Your task to perform on an android device: View the shopping cart on newegg. Add razer naga to the cart on newegg, then select checkout. Image 0: 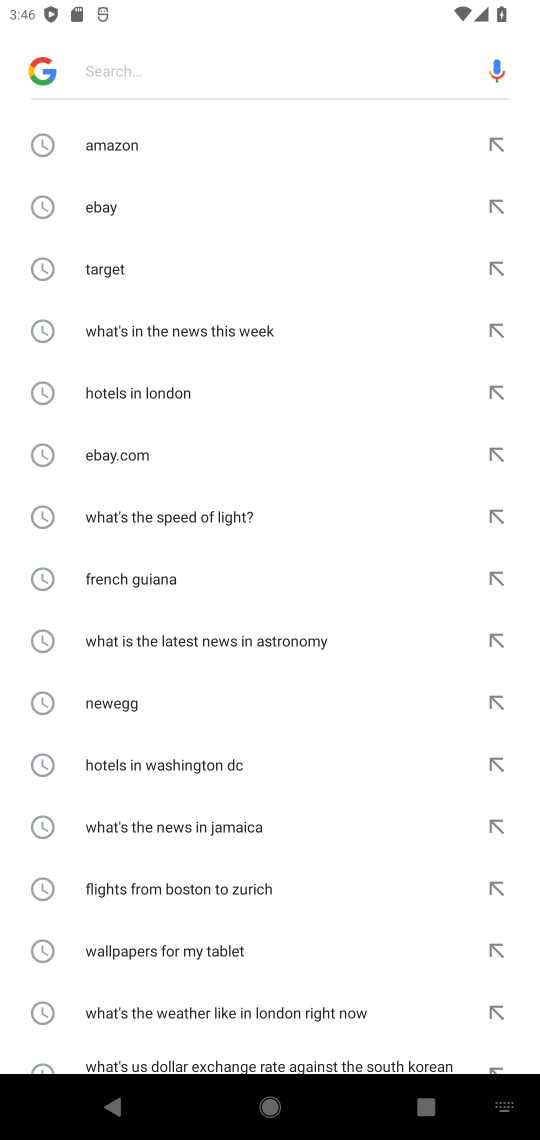
Step 0: press home button
Your task to perform on an android device: View the shopping cart on newegg. Add razer naga to the cart on newegg, then select checkout. Image 1: 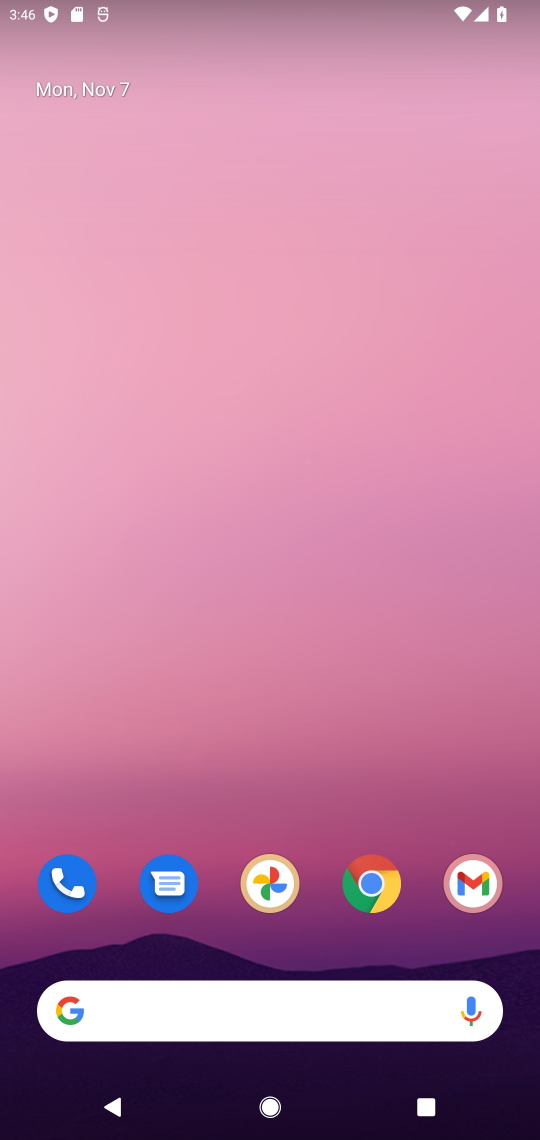
Step 1: click (370, 884)
Your task to perform on an android device: View the shopping cart on newegg. Add razer naga to the cart on newegg, then select checkout. Image 2: 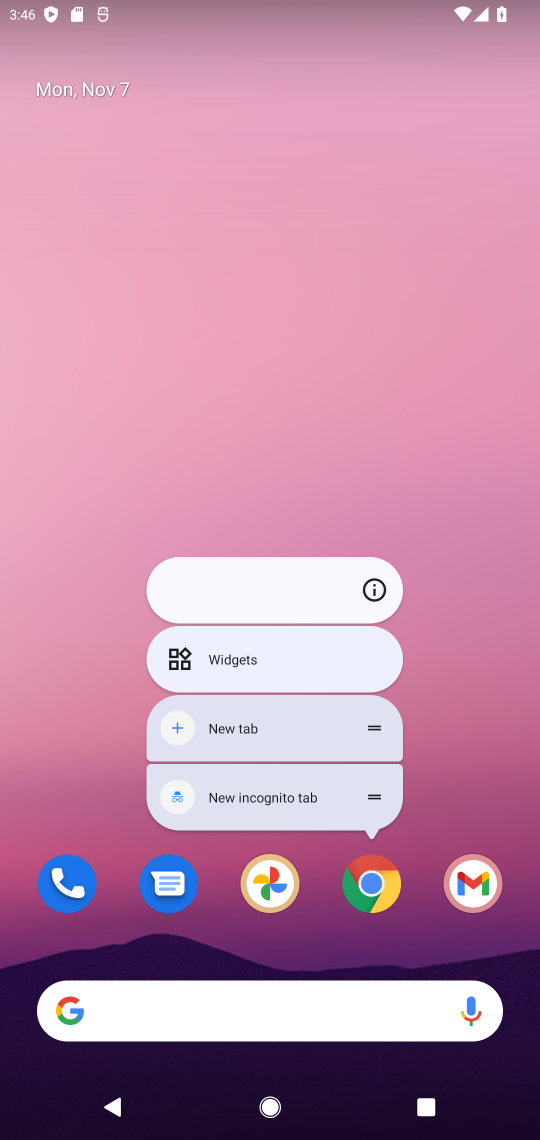
Step 2: click (371, 889)
Your task to perform on an android device: View the shopping cart on newegg. Add razer naga to the cart on newegg, then select checkout. Image 3: 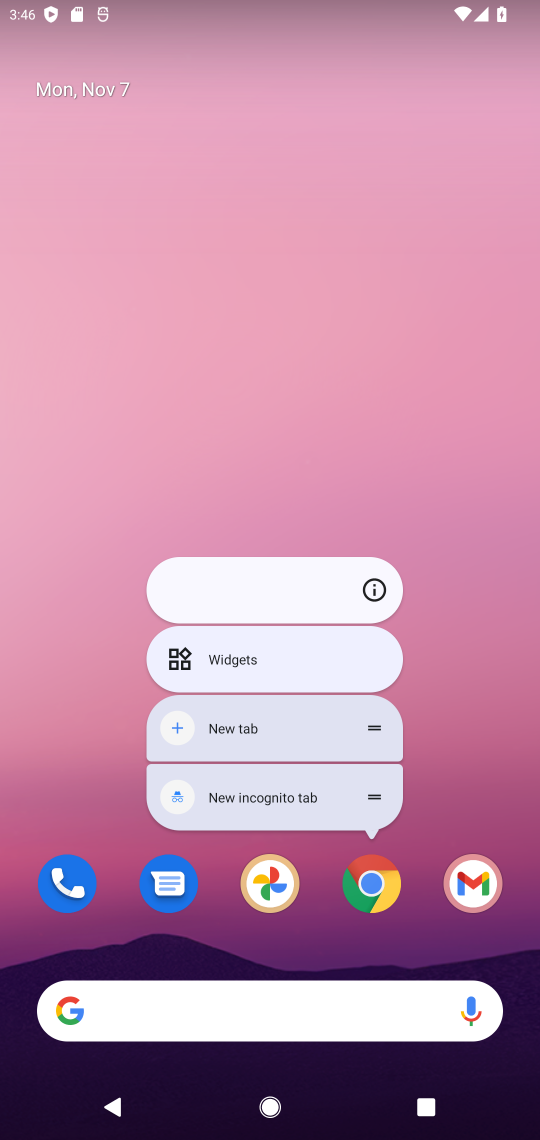
Step 3: click (371, 892)
Your task to perform on an android device: View the shopping cart on newegg. Add razer naga to the cart on newegg, then select checkout. Image 4: 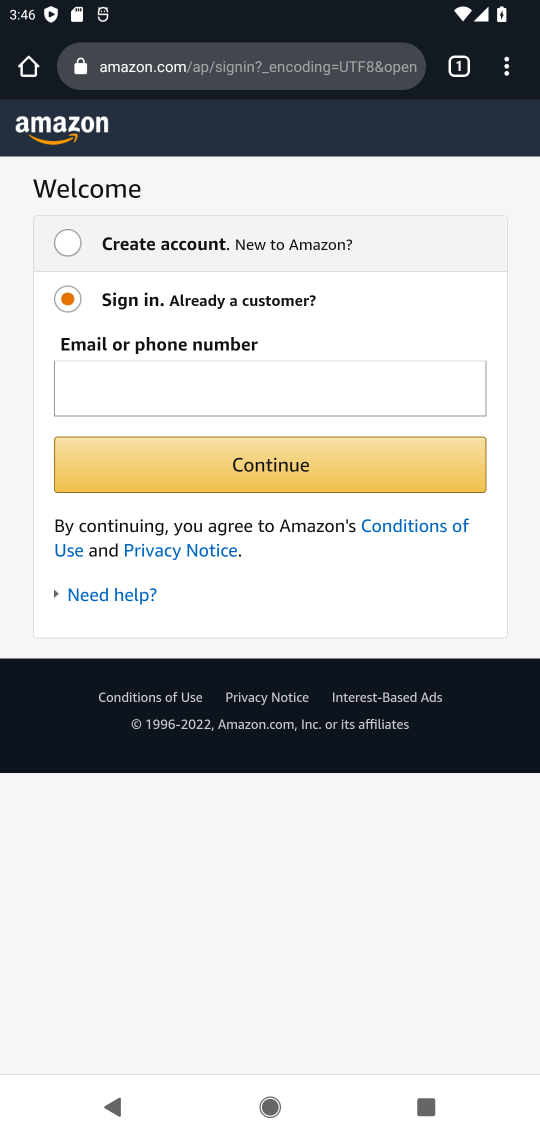
Step 4: click (319, 82)
Your task to perform on an android device: View the shopping cart on newegg. Add razer naga to the cart on newegg, then select checkout. Image 5: 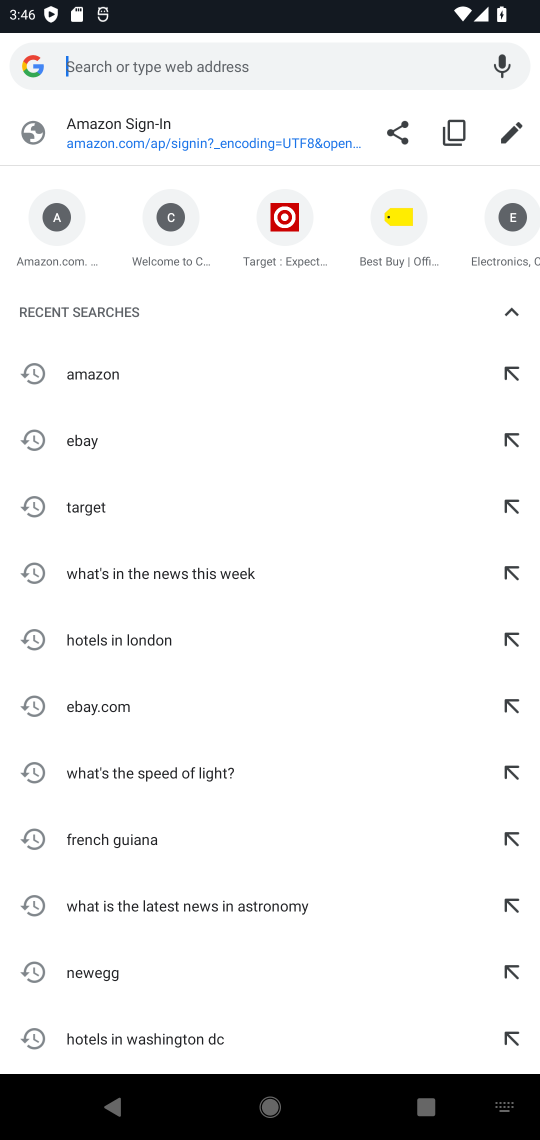
Step 5: click (99, 964)
Your task to perform on an android device: View the shopping cart on newegg. Add razer naga to the cart on newegg, then select checkout. Image 6: 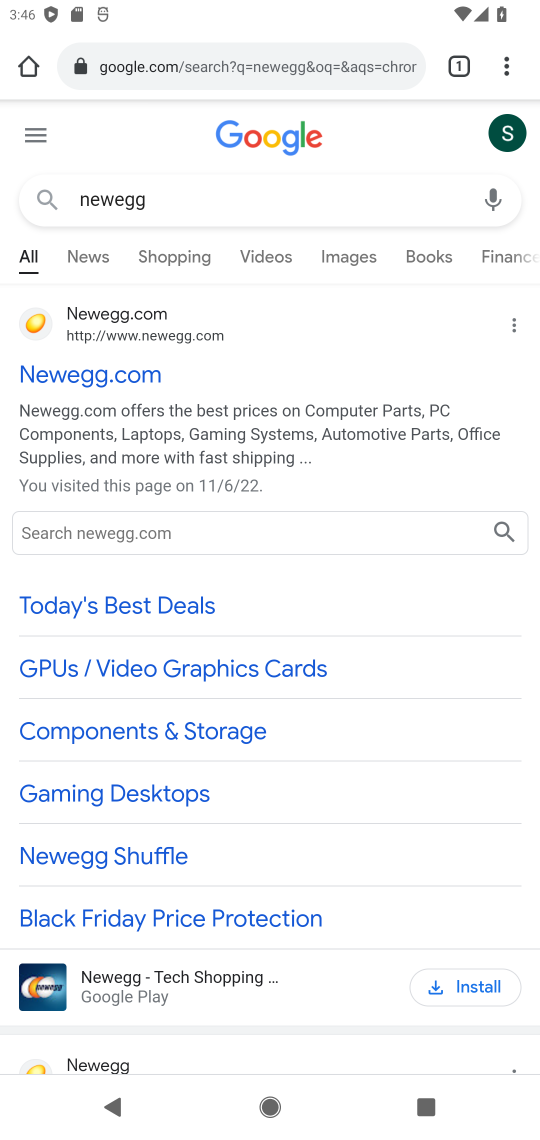
Step 6: click (129, 379)
Your task to perform on an android device: View the shopping cart on newegg. Add razer naga to the cart on newegg, then select checkout. Image 7: 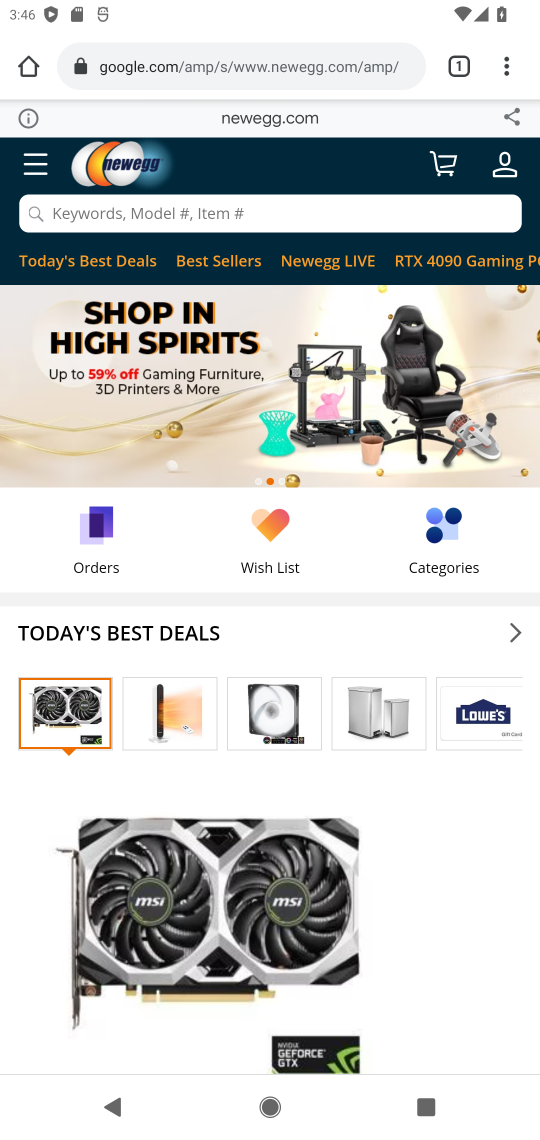
Step 7: click (312, 213)
Your task to perform on an android device: View the shopping cart on newegg. Add razer naga to the cart on newegg, then select checkout. Image 8: 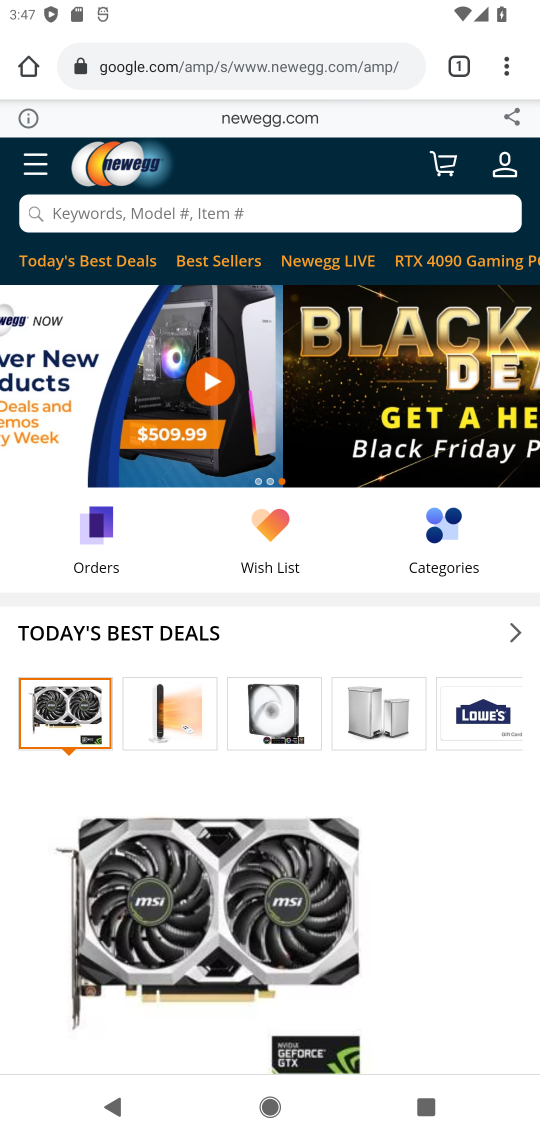
Step 8: click (114, 208)
Your task to perform on an android device: View the shopping cart on newegg. Add razer naga to the cart on newegg, then select checkout. Image 9: 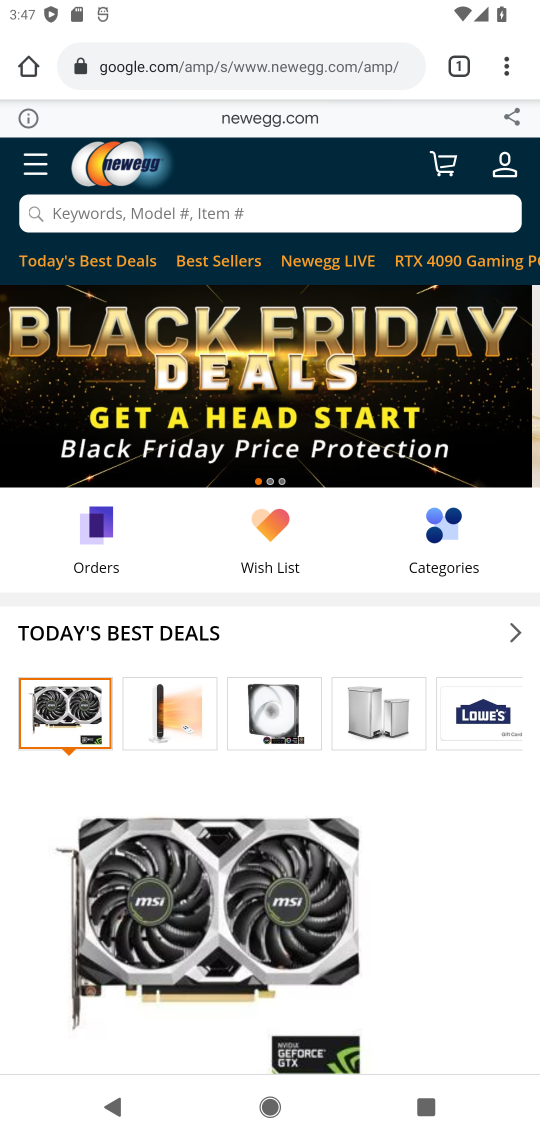
Step 9: click (208, 208)
Your task to perform on an android device: View the shopping cart on newegg. Add razer naga to the cart on newegg, then select checkout. Image 10: 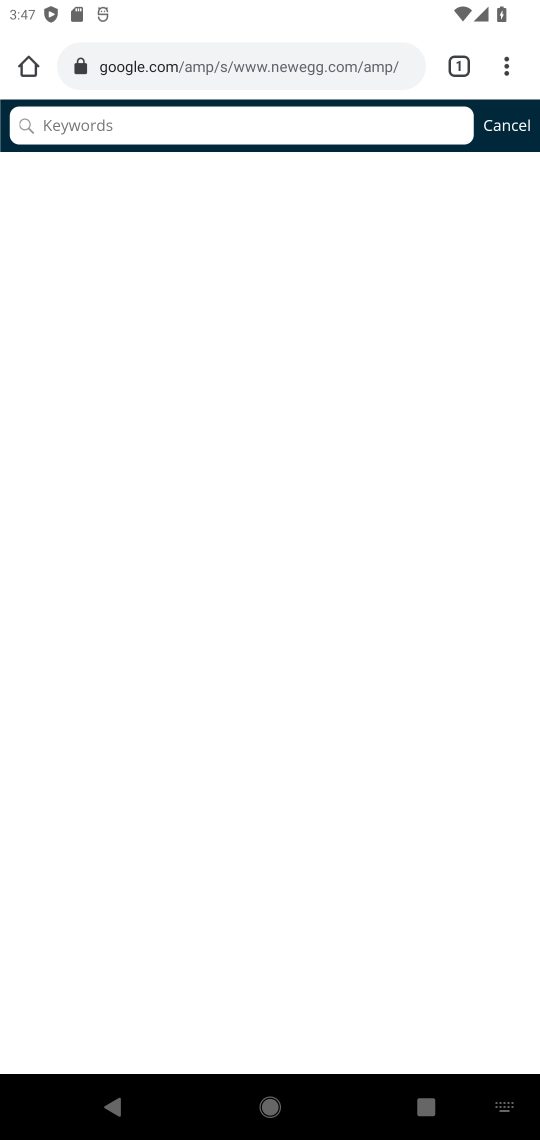
Step 10: type " razer naga"
Your task to perform on an android device: View the shopping cart on newegg. Add razer naga to the cart on newegg, then select checkout. Image 11: 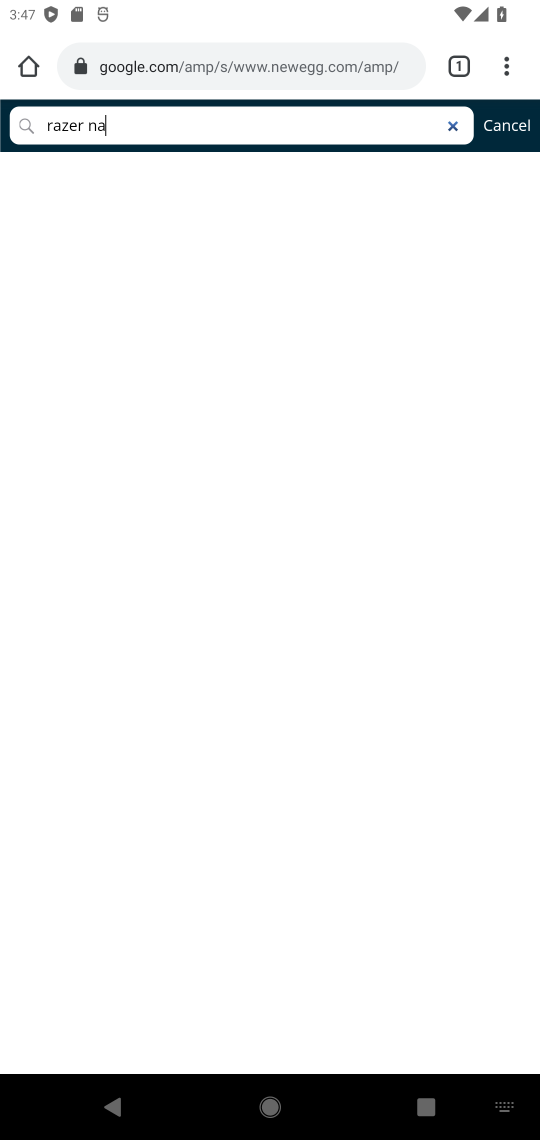
Step 11: press enter
Your task to perform on an android device: View the shopping cart on newegg. Add razer naga to the cart on newegg, then select checkout. Image 12: 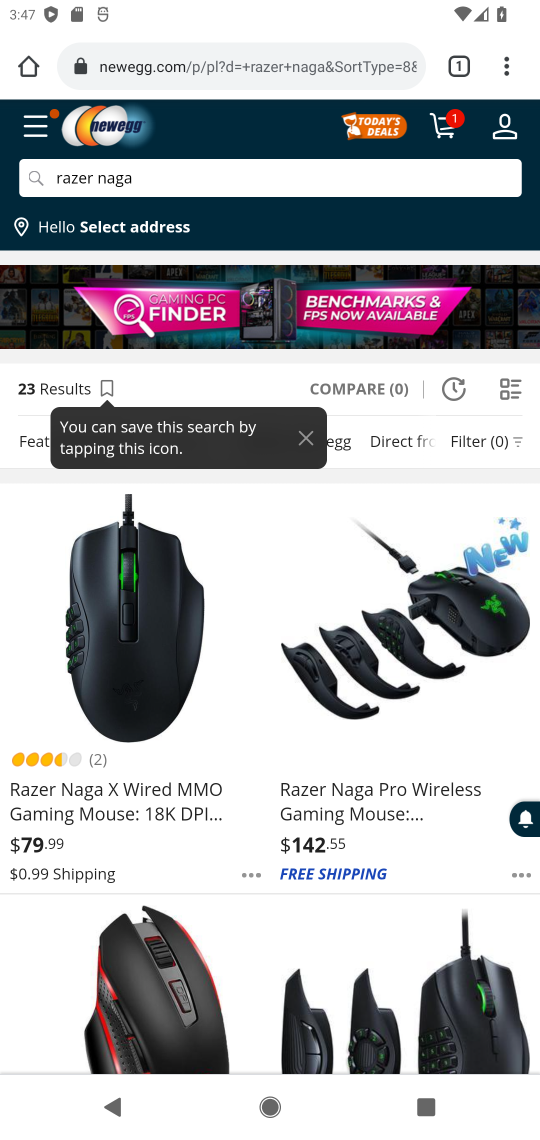
Step 12: click (148, 733)
Your task to perform on an android device: View the shopping cart on newegg. Add razer naga to the cart on newegg, then select checkout. Image 13: 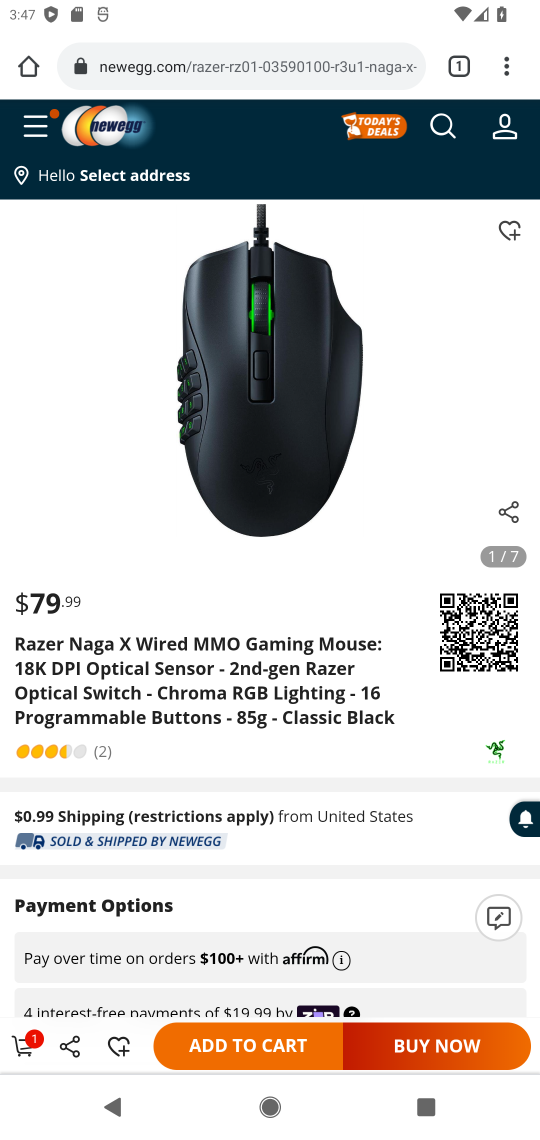
Step 13: click (239, 1040)
Your task to perform on an android device: View the shopping cart on newegg. Add razer naga to the cart on newegg, then select checkout. Image 14: 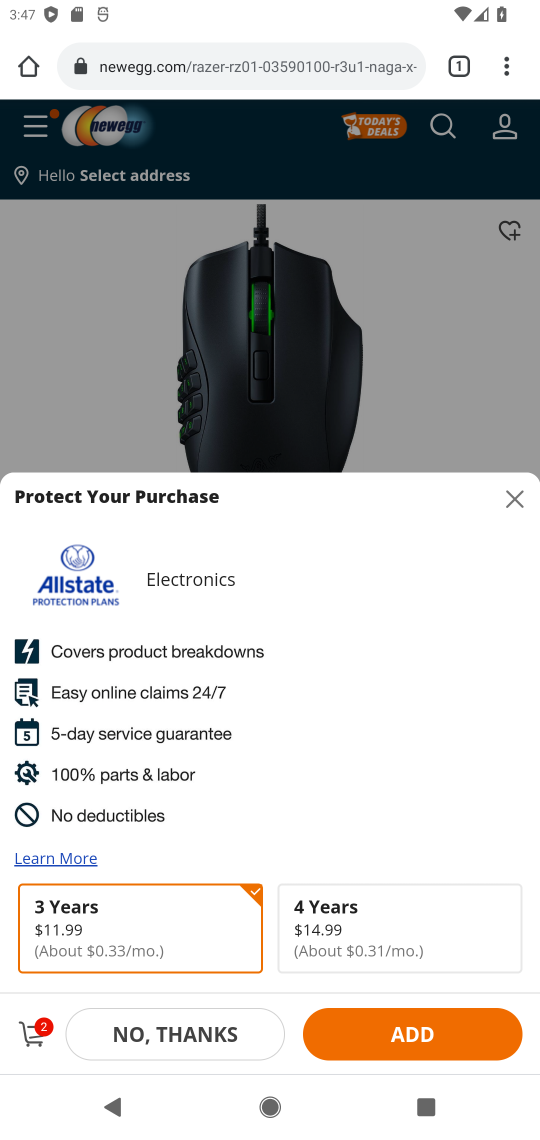
Step 14: click (162, 1032)
Your task to perform on an android device: View the shopping cart on newegg. Add razer naga to the cart on newegg, then select checkout. Image 15: 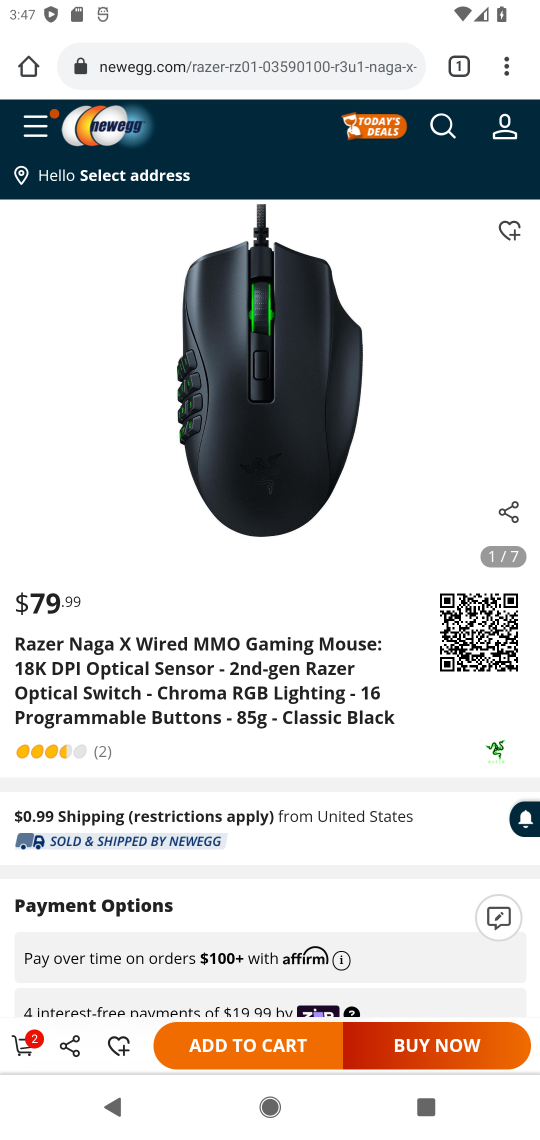
Step 15: click (31, 1049)
Your task to perform on an android device: View the shopping cart on newegg. Add razer naga to the cart on newegg, then select checkout. Image 16: 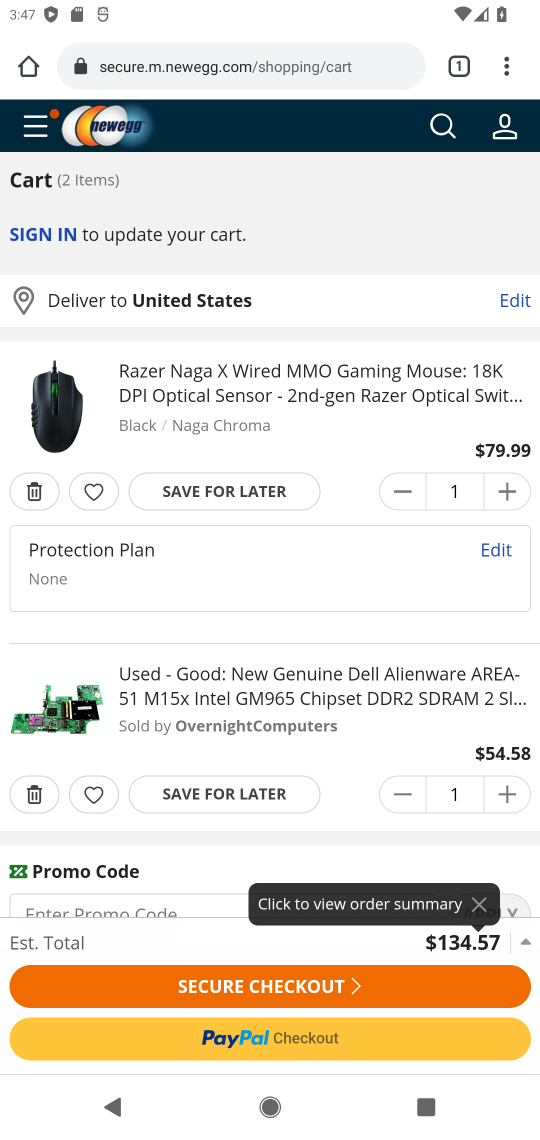
Step 16: click (26, 794)
Your task to perform on an android device: View the shopping cart on newegg. Add razer naga to the cart on newegg, then select checkout. Image 17: 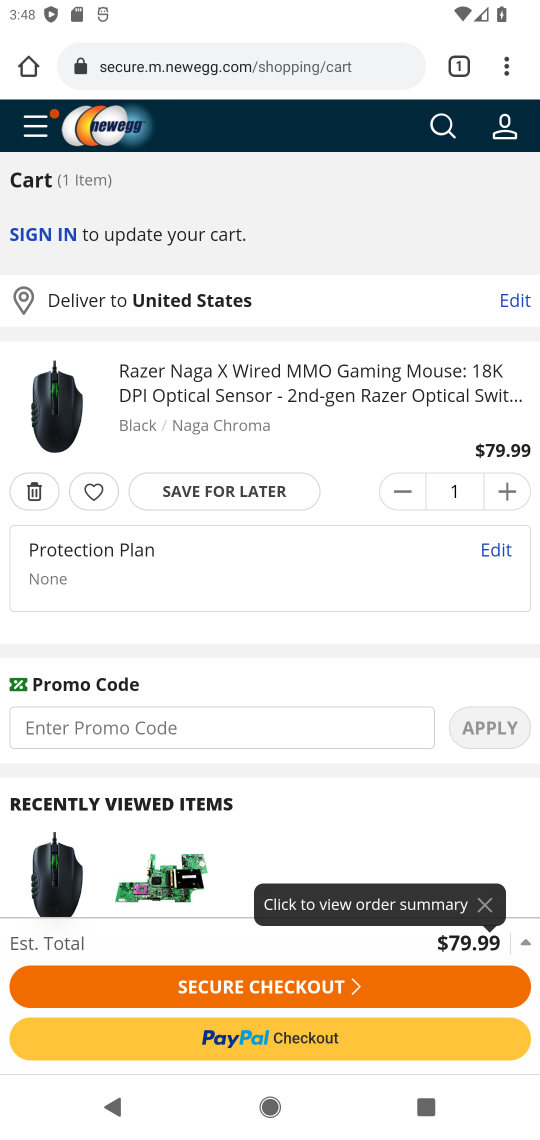
Step 17: click (273, 989)
Your task to perform on an android device: View the shopping cart on newegg. Add razer naga to the cart on newegg, then select checkout. Image 18: 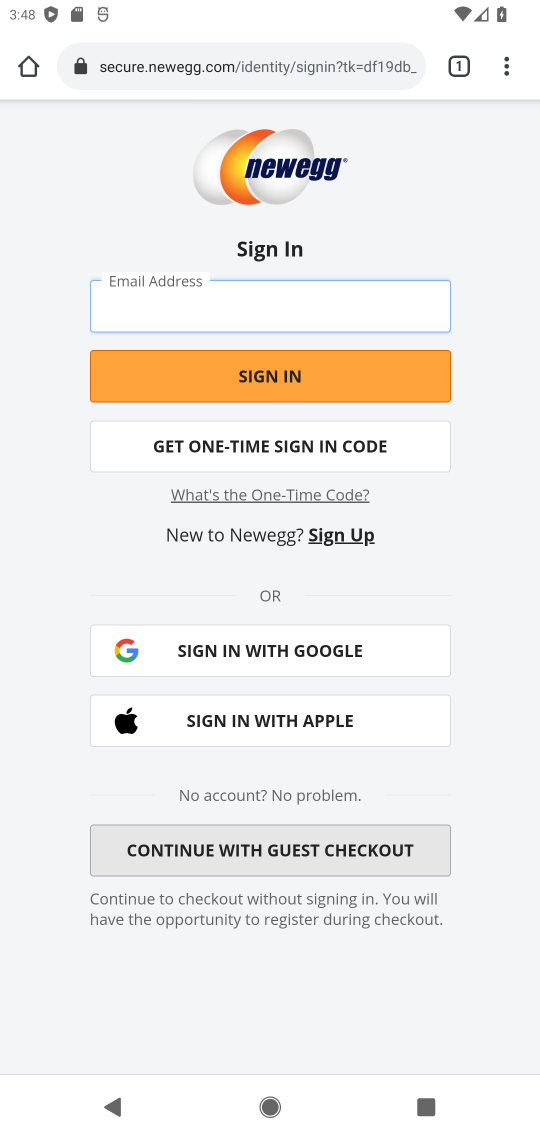
Step 18: task complete